Your task to perform on an android device: add a contact Image 0: 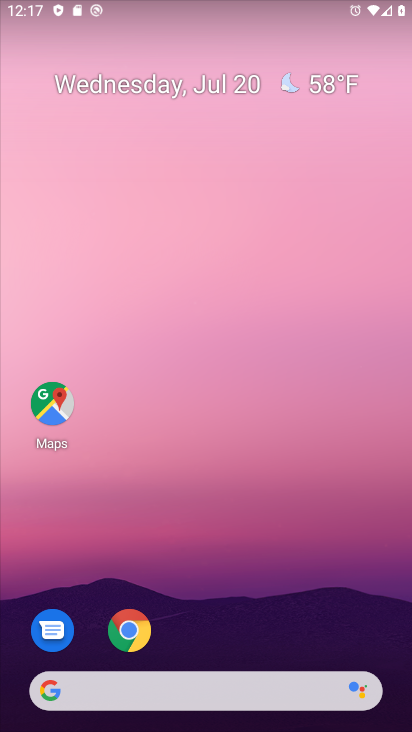
Step 0: drag from (154, 684) to (332, 66)
Your task to perform on an android device: add a contact Image 1: 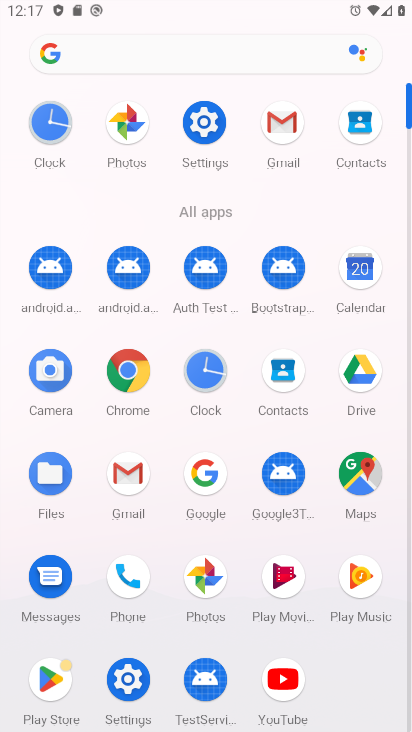
Step 1: click (278, 382)
Your task to perform on an android device: add a contact Image 2: 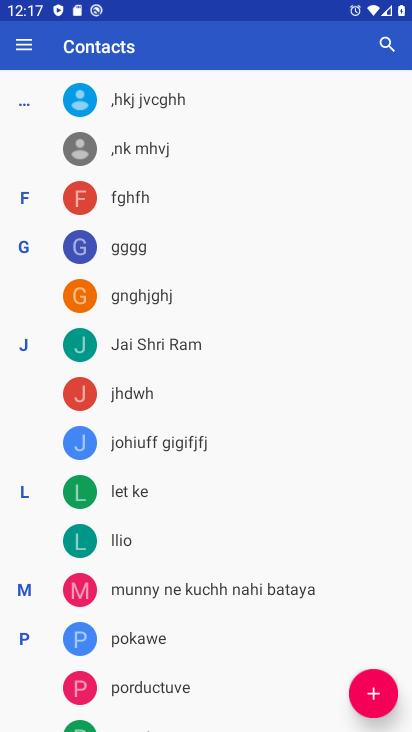
Step 2: click (354, 678)
Your task to perform on an android device: add a contact Image 3: 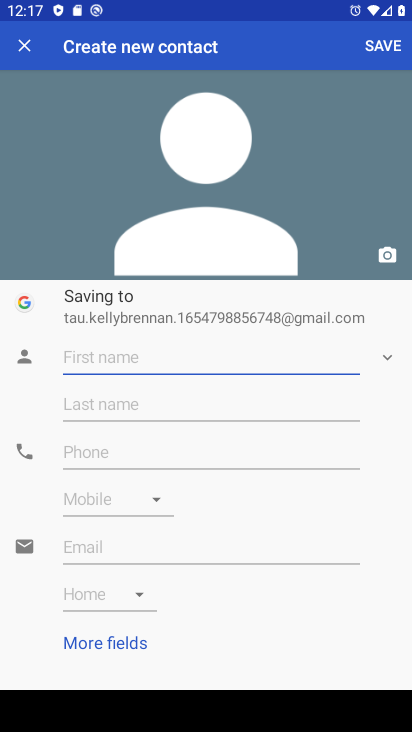
Step 3: type "nuiikdesa"
Your task to perform on an android device: add a contact Image 4: 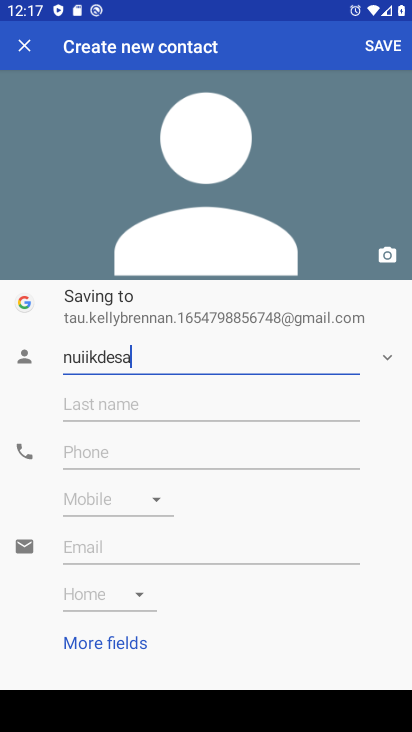
Step 4: click (60, 447)
Your task to perform on an android device: add a contact Image 5: 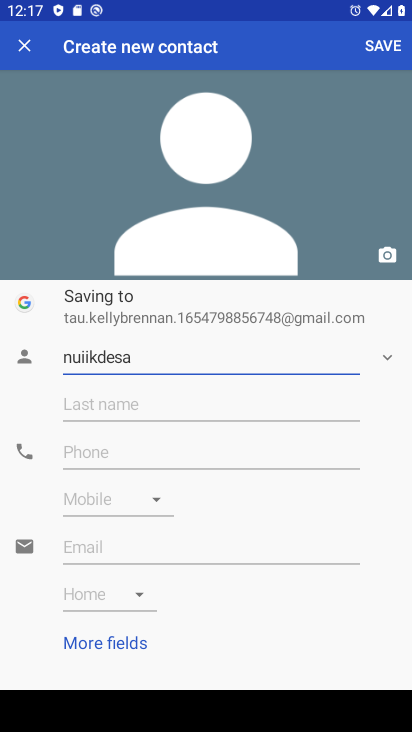
Step 5: click (72, 443)
Your task to perform on an android device: add a contact Image 6: 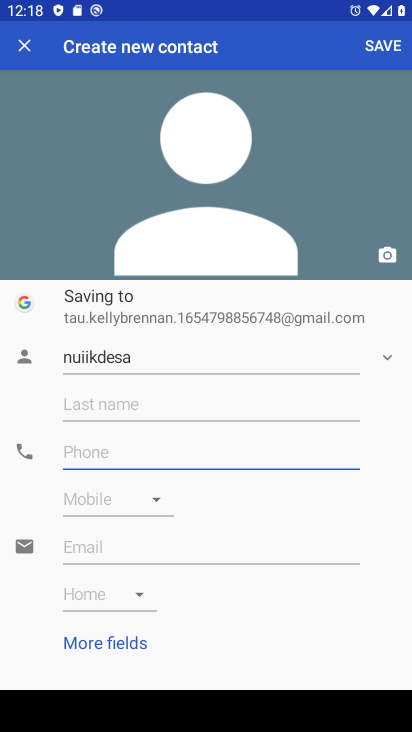
Step 6: type "0574"
Your task to perform on an android device: add a contact Image 7: 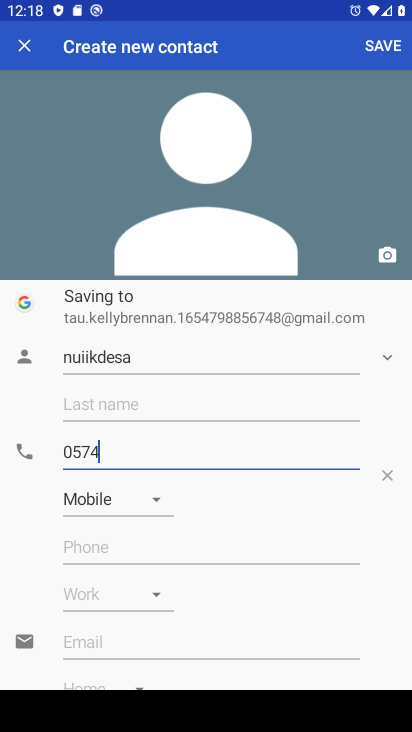
Step 7: click (384, 43)
Your task to perform on an android device: add a contact Image 8: 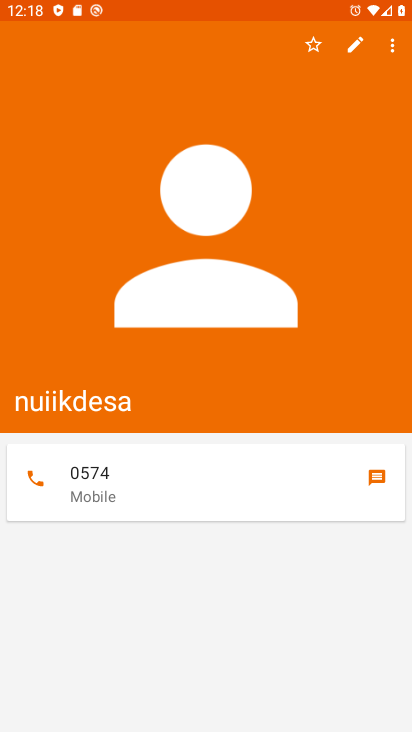
Step 8: task complete